Your task to perform on an android device: Open ESPN.com Image 0: 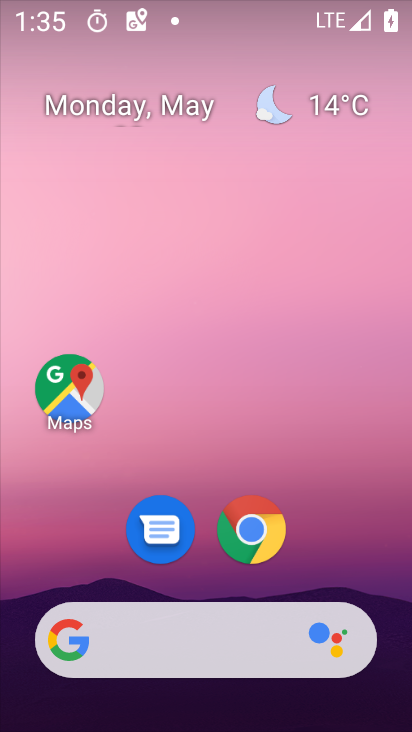
Step 0: drag from (369, 535) to (354, 208)
Your task to perform on an android device: Open ESPN.com Image 1: 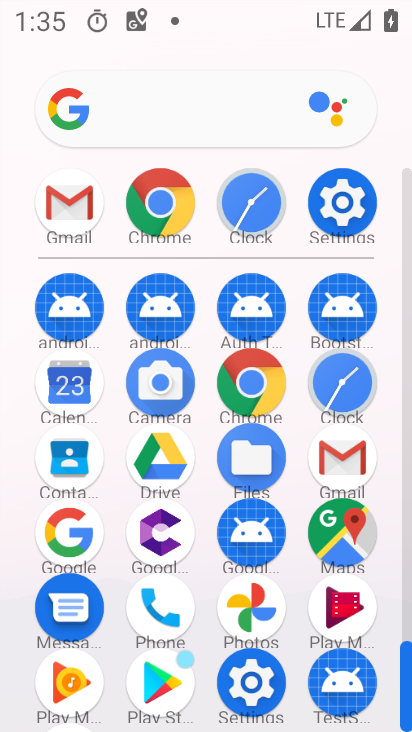
Step 1: click (254, 400)
Your task to perform on an android device: Open ESPN.com Image 2: 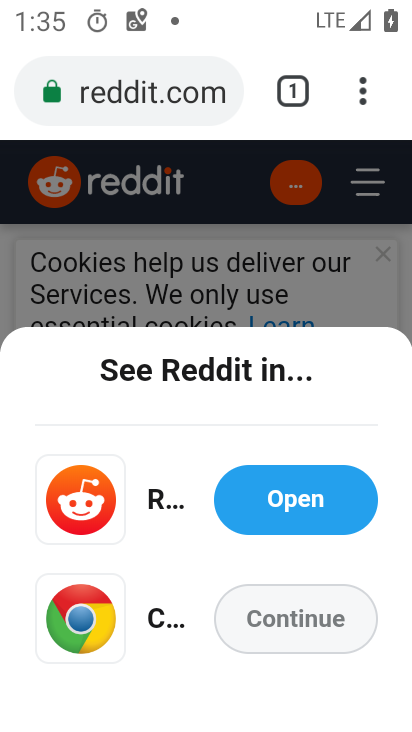
Step 2: press back button
Your task to perform on an android device: Open ESPN.com Image 3: 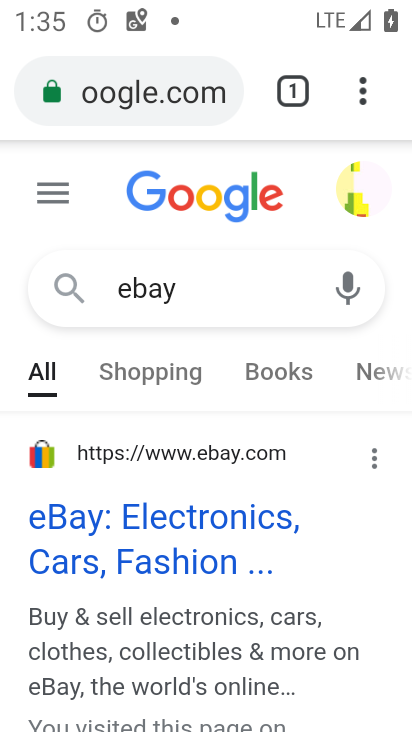
Step 3: press back button
Your task to perform on an android device: Open ESPN.com Image 4: 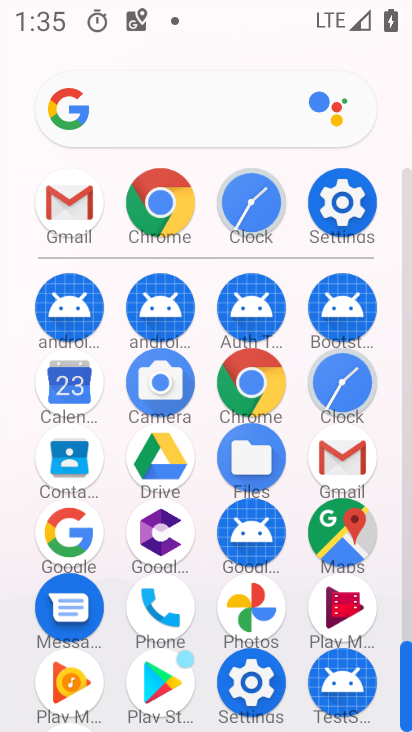
Step 4: click (235, 397)
Your task to perform on an android device: Open ESPN.com Image 5: 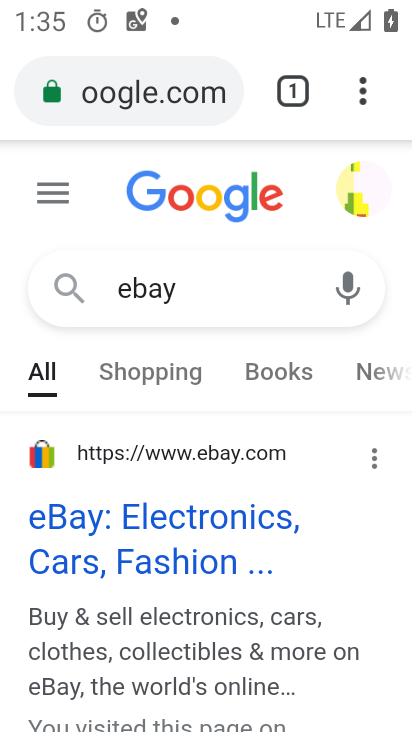
Step 5: click (205, 95)
Your task to perform on an android device: Open ESPN.com Image 6: 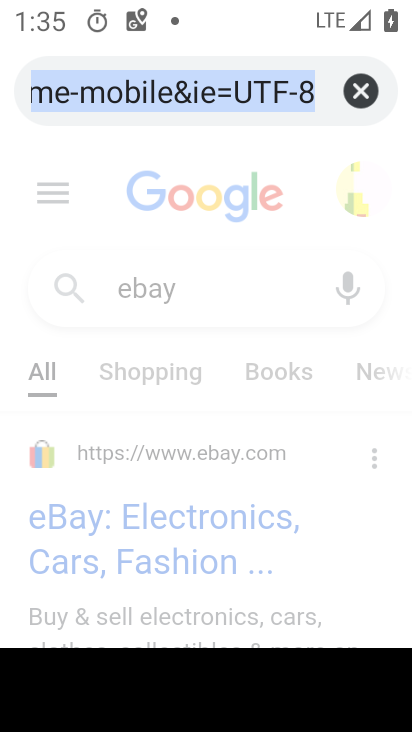
Step 6: click (354, 90)
Your task to perform on an android device: Open ESPN.com Image 7: 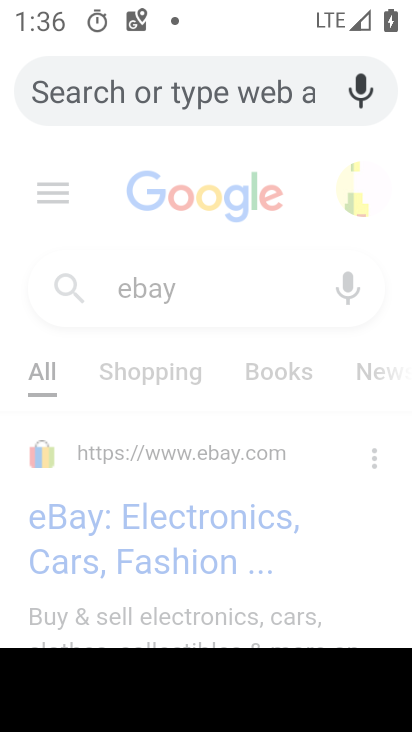
Step 7: type "espn.com"
Your task to perform on an android device: Open ESPN.com Image 8: 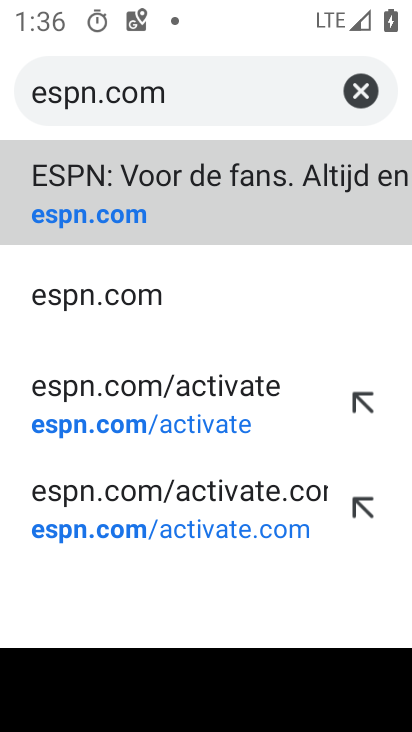
Step 8: click (229, 200)
Your task to perform on an android device: Open ESPN.com Image 9: 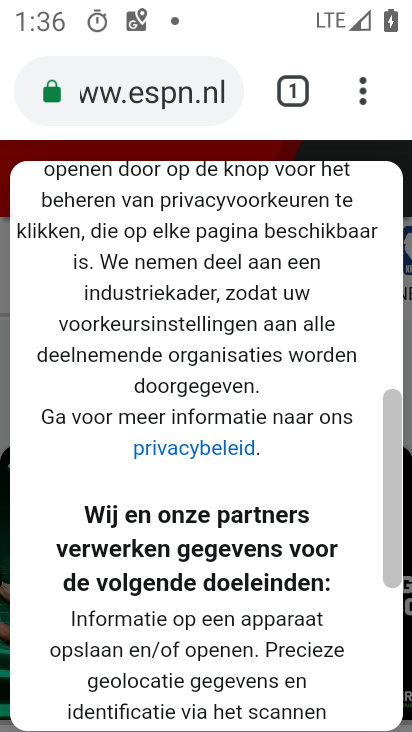
Step 9: task complete